Your task to perform on an android device: delete location history Image 0: 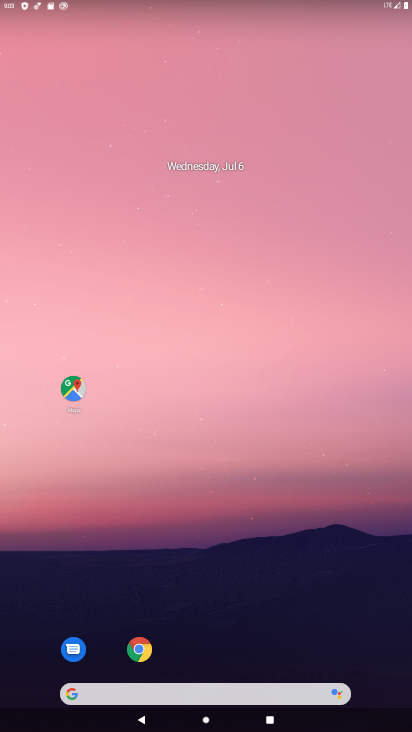
Step 0: drag from (203, 660) to (148, 119)
Your task to perform on an android device: delete location history Image 1: 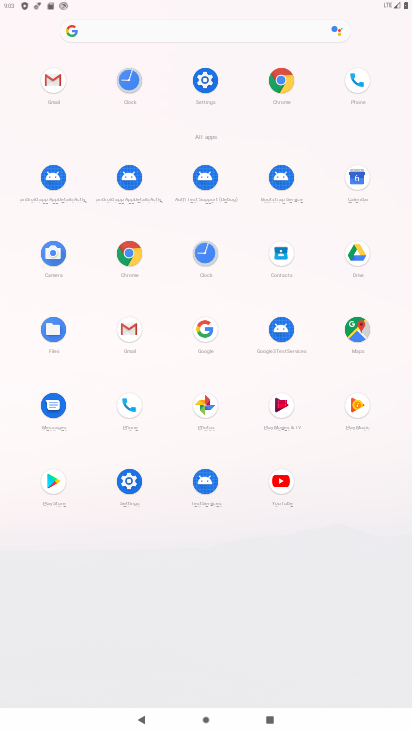
Step 1: click (364, 341)
Your task to perform on an android device: delete location history Image 2: 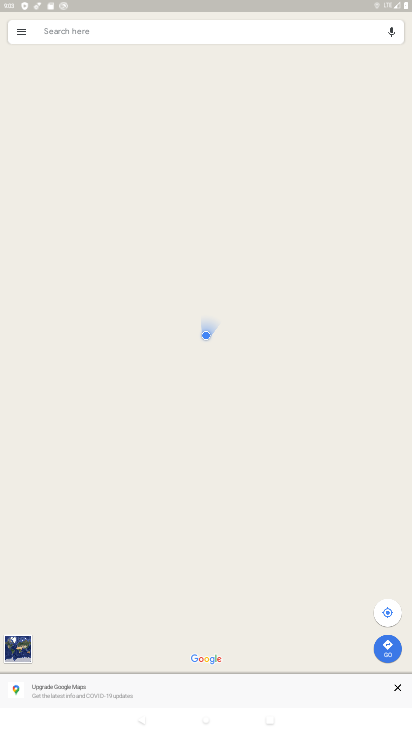
Step 2: click (25, 27)
Your task to perform on an android device: delete location history Image 3: 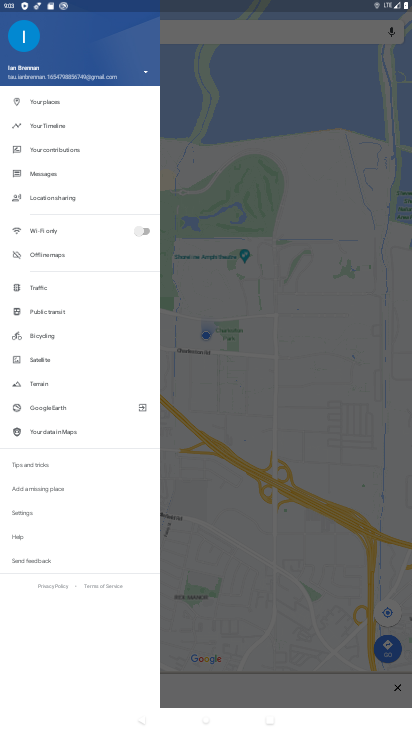
Step 3: click (51, 120)
Your task to perform on an android device: delete location history Image 4: 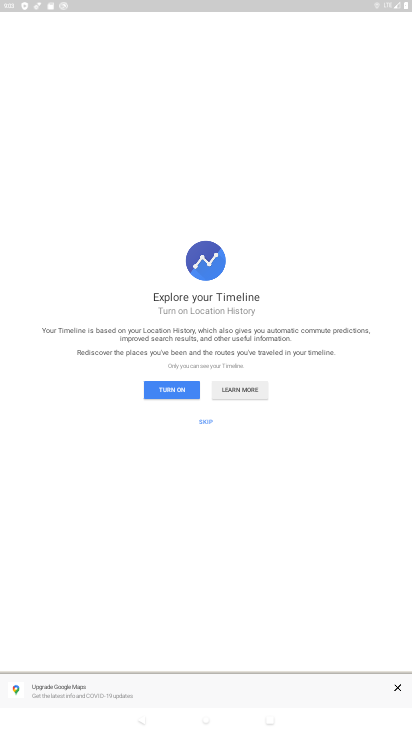
Step 4: click (199, 419)
Your task to perform on an android device: delete location history Image 5: 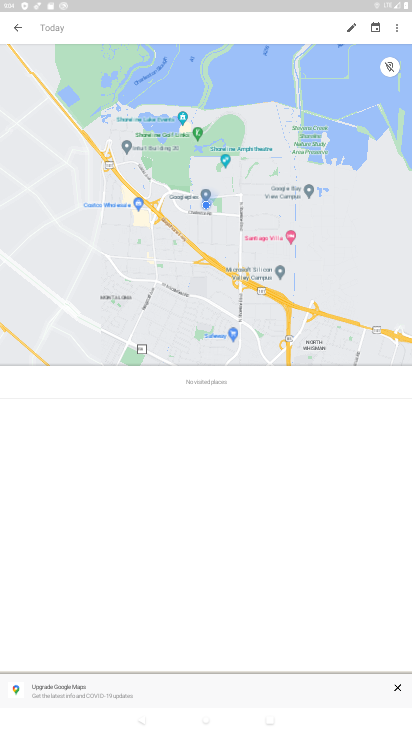
Step 5: click (395, 27)
Your task to perform on an android device: delete location history Image 6: 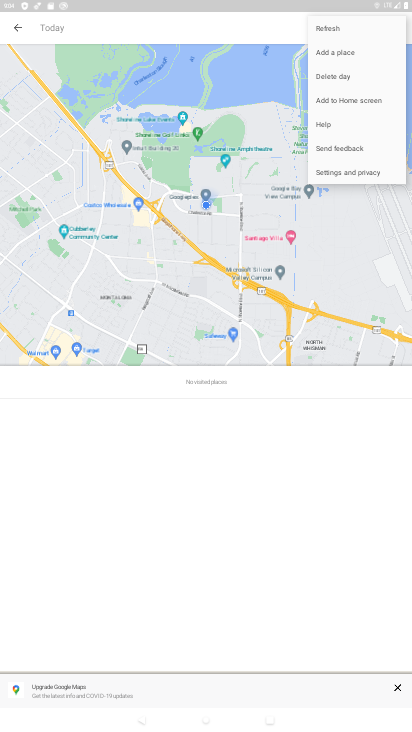
Step 6: click (345, 173)
Your task to perform on an android device: delete location history Image 7: 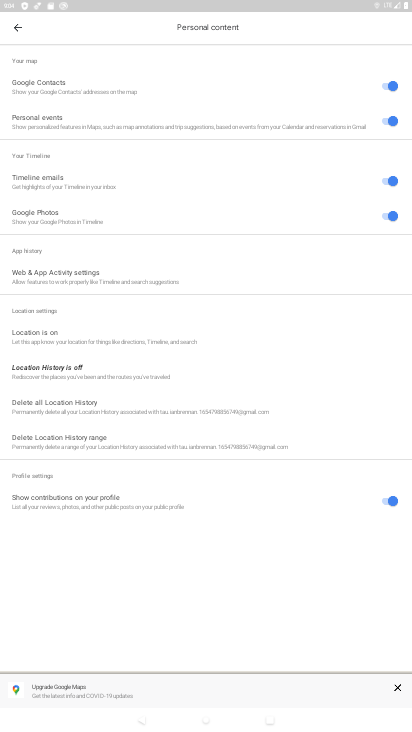
Step 7: click (65, 395)
Your task to perform on an android device: delete location history Image 8: 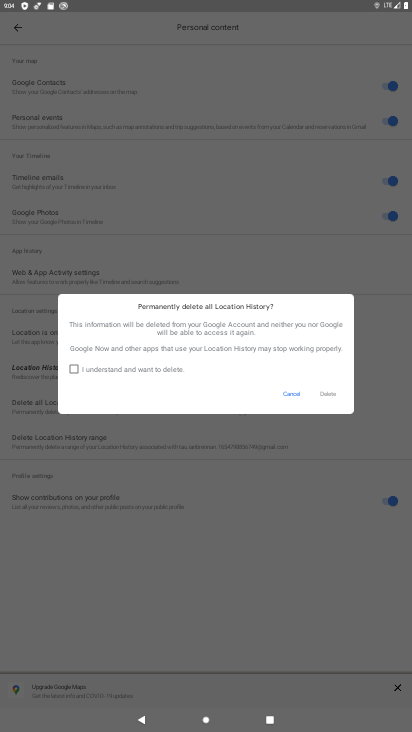
Step 8: click (68, 368)
Your task to perform on an android device: delete location history Image 9: 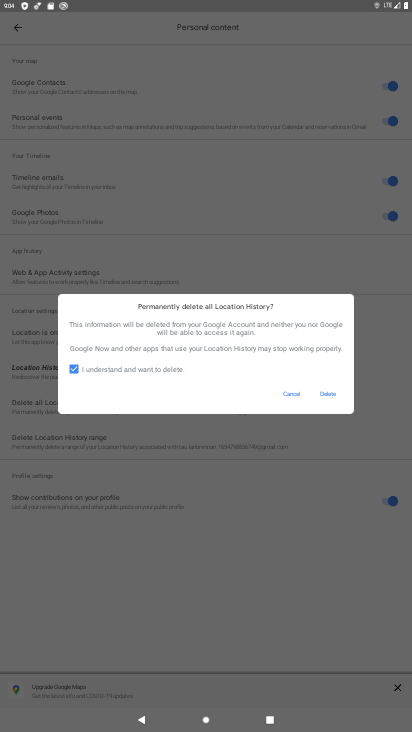
Step 9: click (329, 392)
Your task to perform on an android device: delete location history Image 10: 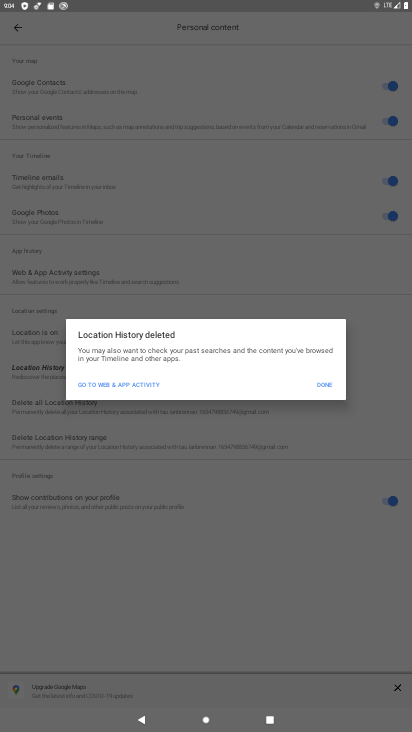
Step 10: click (330, 378)
Your task to perform on an android device: delete location history Image 11: 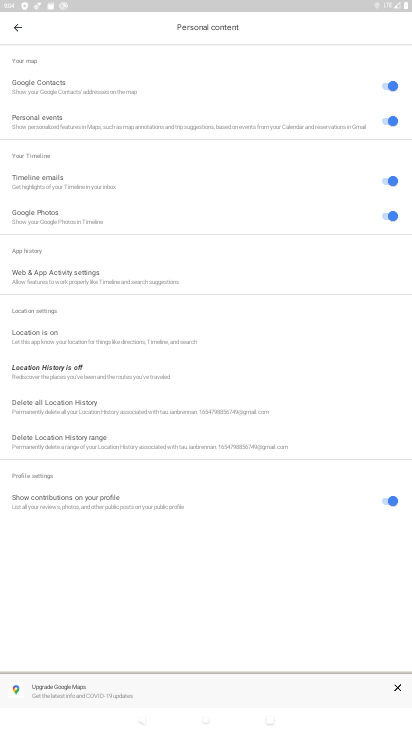
Step 11: task complete